Your task to perform on an android device: turn on location history Image 0: 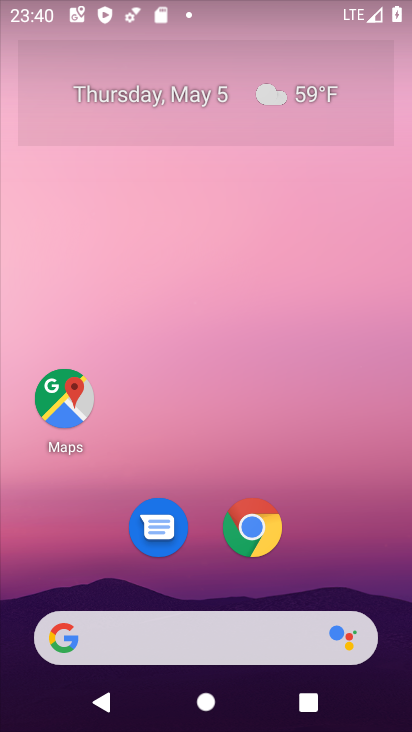
Step 0: drag from (206, 583) to (275, 5)
Your task to perform on an android device: turn on location history Image 1: 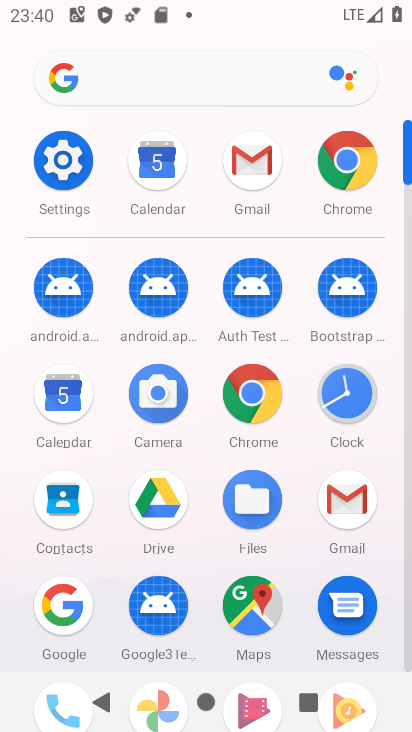
Step 1: click (65, 178)
Your task to perform on an android device: turn on location history Image 2: 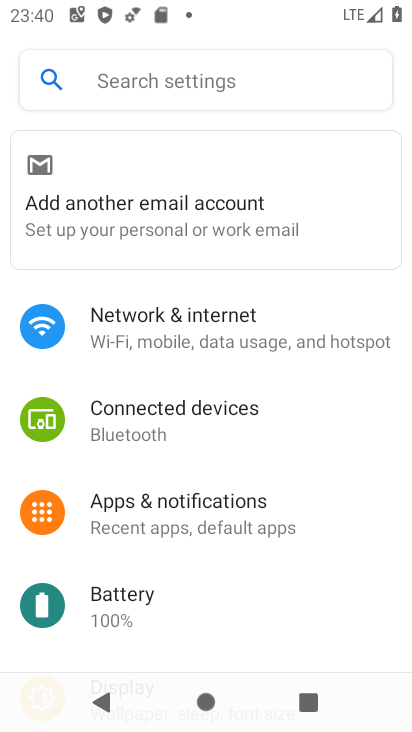
Step 2: drag from (171, 512) to (215, 209)
Your task to perform on an android device: turn on location history Image 3: 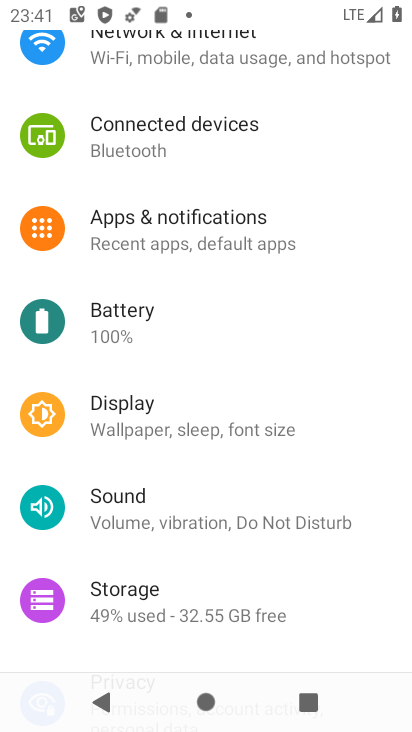
Step 3: drag from (182, 513) to (218, 208)
Your task to perform on an android device: turn on location history Image 4: 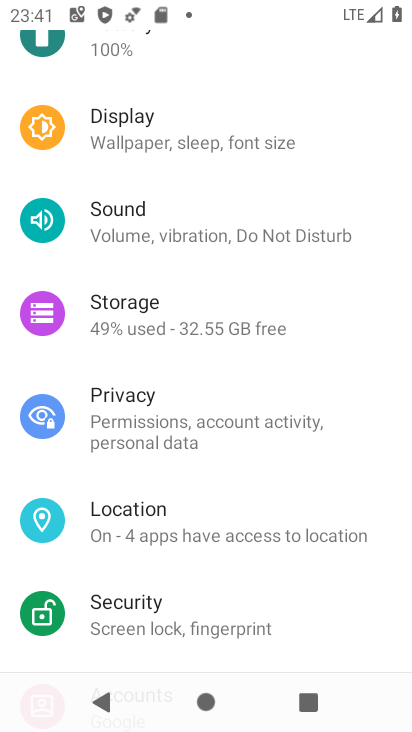
Step 4: click (145, 523)
Your task to perform on an android device: turn on location history Image 5: 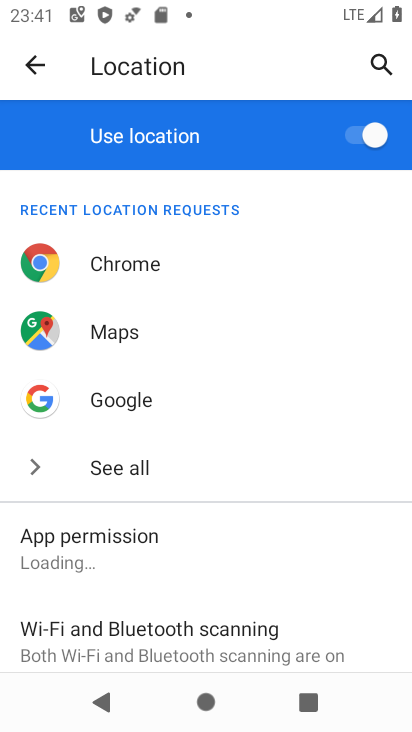
Step 5: drag from (140, 623) to (185, 310)
Your task to perform on an android device: turn on location history Image 6: 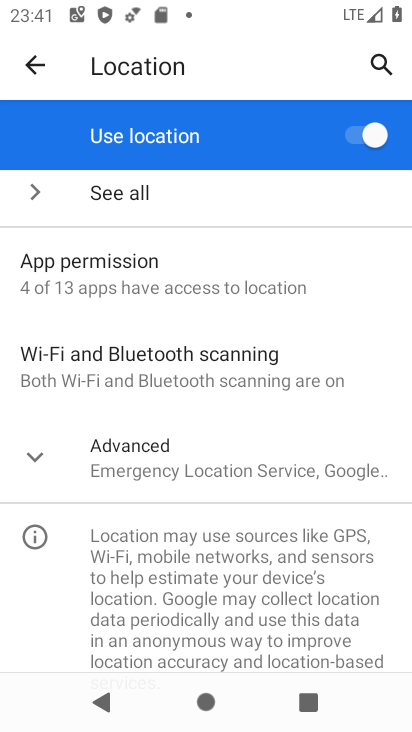
Step 6: click (150, 474)
Your task to perform on an android device: turn on location history Image 7: 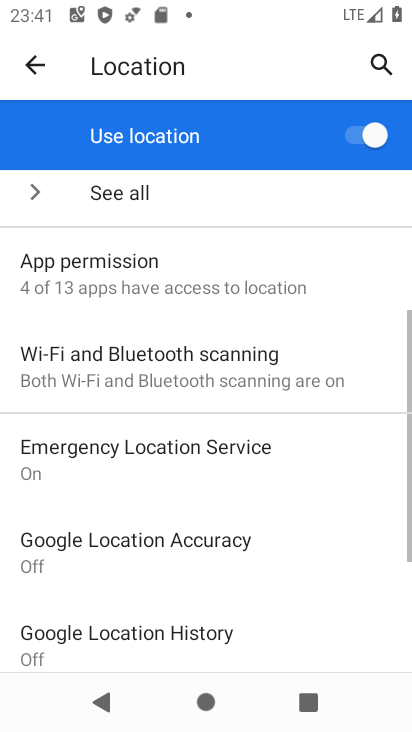
Step 7: drag from (123, 617) to (153, 468)
Your task to perform on an android device: turn on location history Image 8: 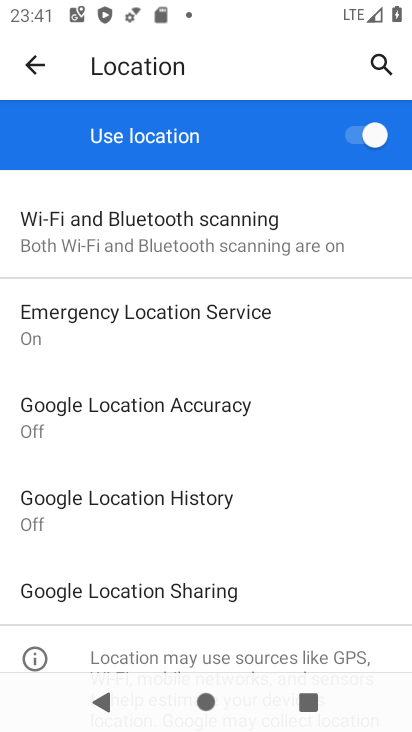
Step 8: click (109, 567)
Your task to perform on an android device: turn on location history Image 9: 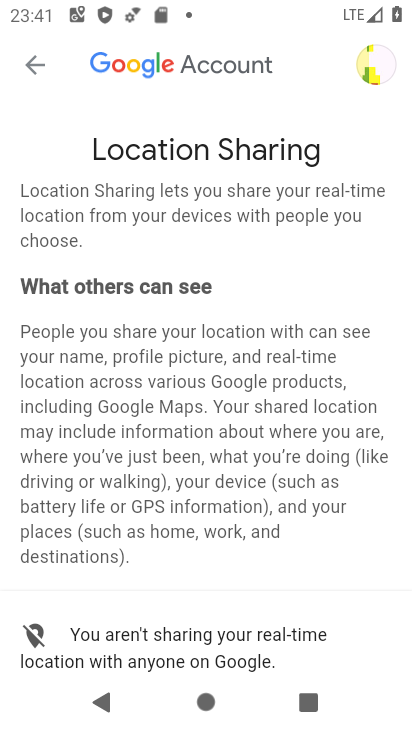
Step 9: press back button
Your task to perform on an android device: turn on location history Image 10: 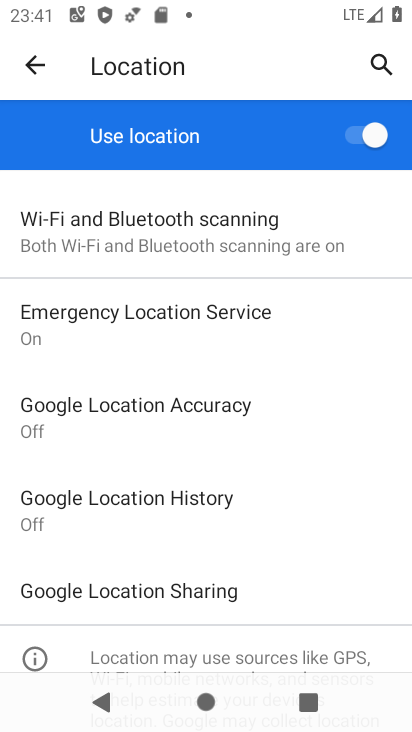
Step 10: click (179, 506)
Your task to perform on an android device: turn on location history Image 11: 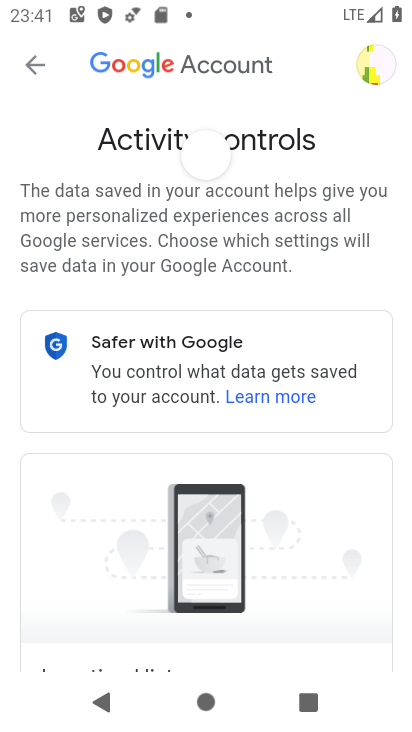
Step 11: drag from (216, 492) to (287, 238)
Your task to perform on an android device: turn on location history Image 12: 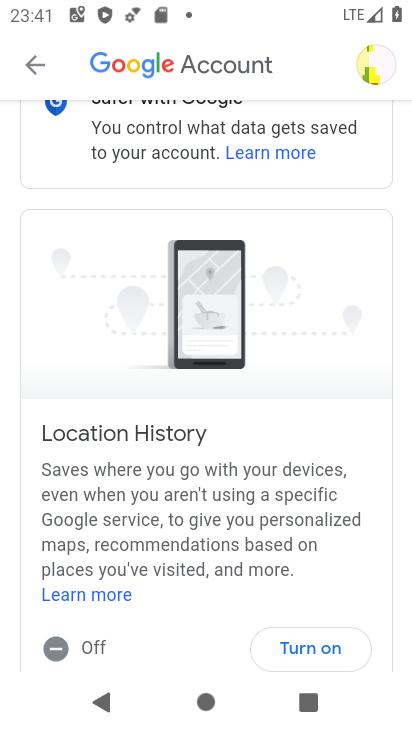
Step 12: drag from (233, 572) to (264, 427)
Your task to perform on an android device: turn on location history Image 13: 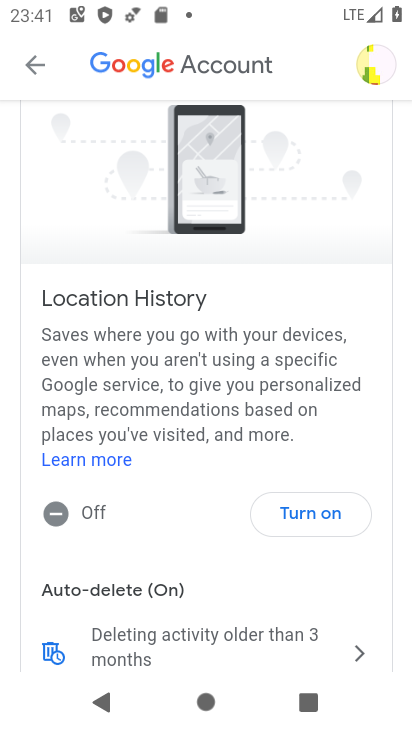
Step 13: click (296, 527)
Your task to perform on an android device: turn on location history Image 14: 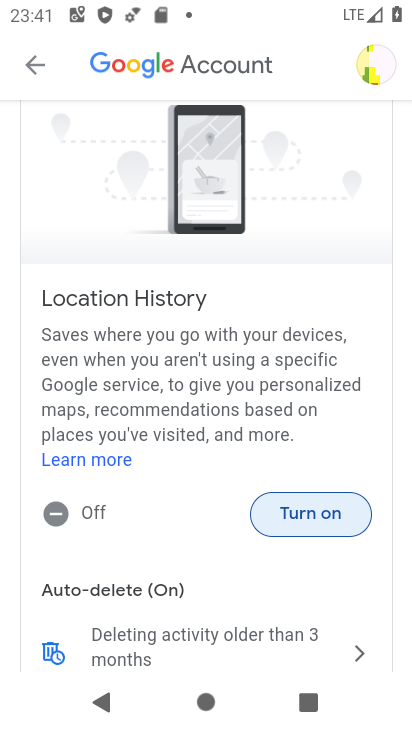
Step 14: task complete